Your task to perform on an android device: open app "Etsy: Buy & Sell Unique Items" Image 0: 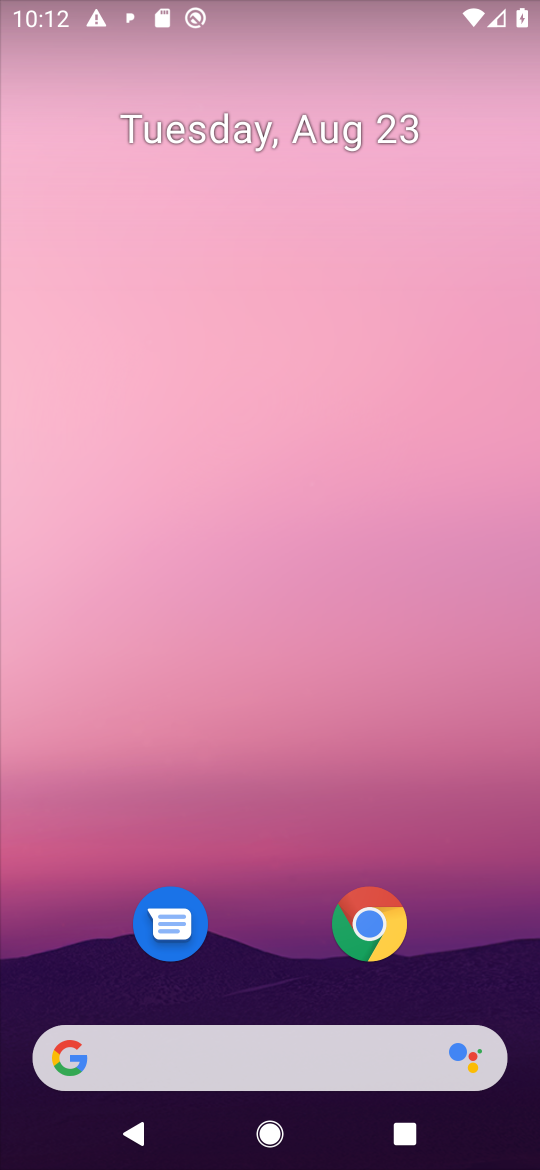
Step 0: press home button
Your task to perform on an android device: open app "Etsy: Buy & Sell Unique Items" Image 1: 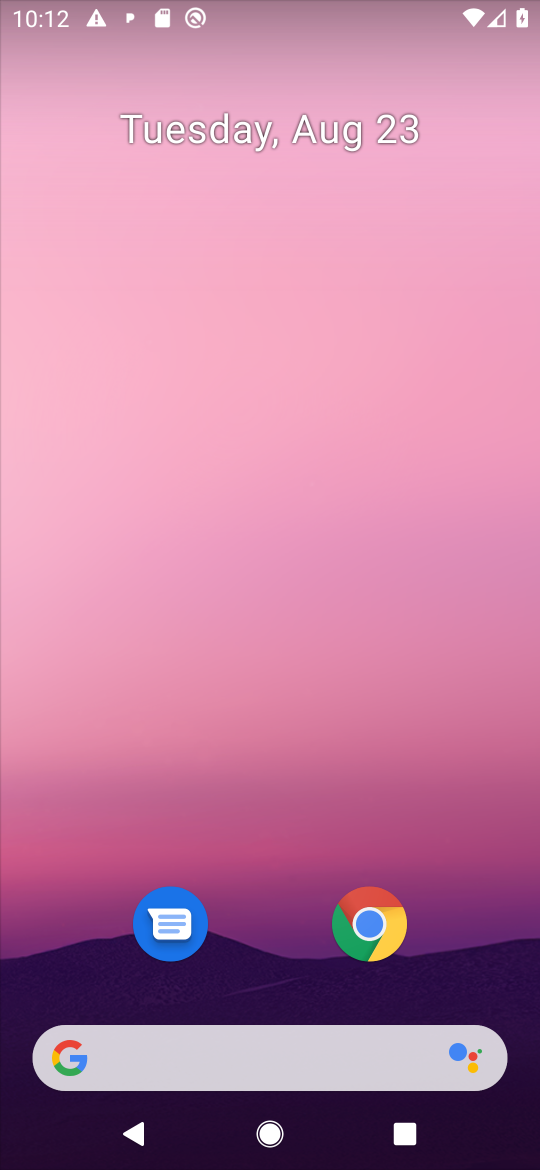
Step 1: drag from (466, 814) to (494, 22)
Your task to perform on an android device: open app "Etsy: Buy & Sell Unique Items" Image 2: 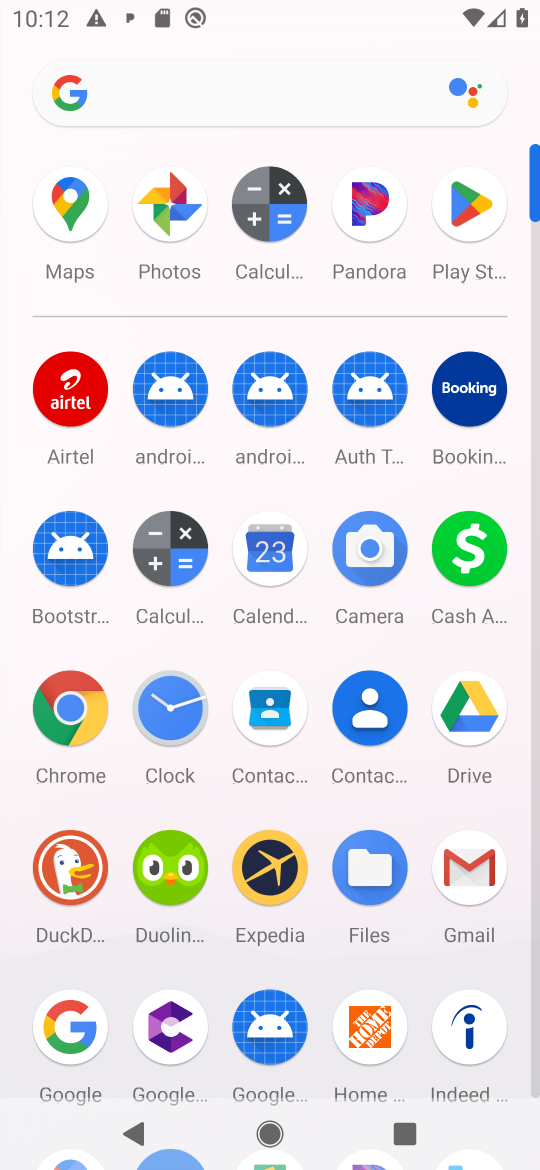
Step 2: click (469, 204)
Your task to perform on an android device: open app "Etsy: Buy & Sell Unique Items" Image 3: 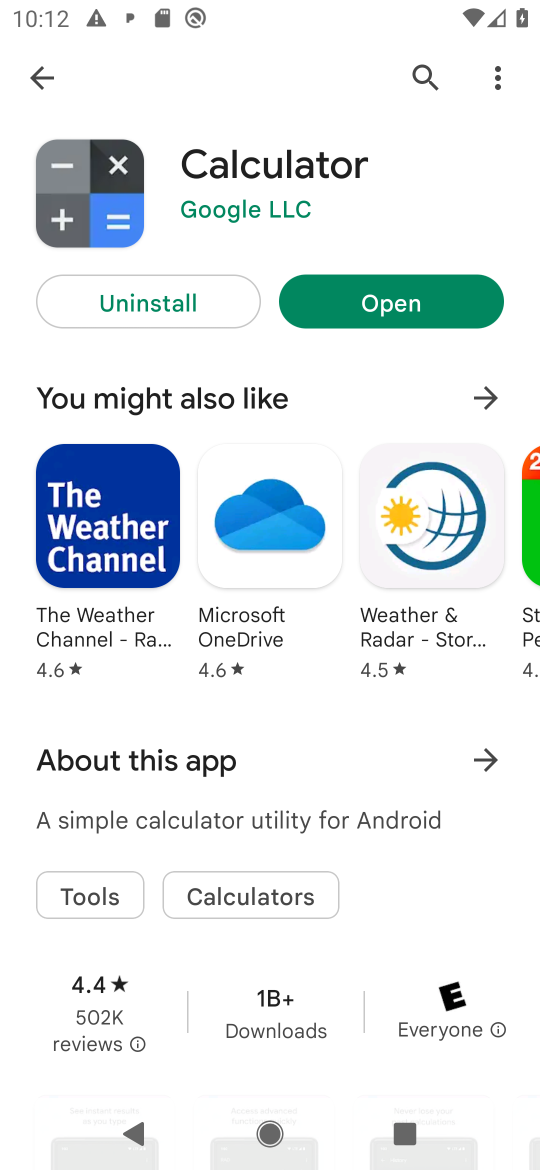
Step 3: press back button
Your task to perform on an android device: open app "Etsy: Buy & Sell Unique Items" Image 4: 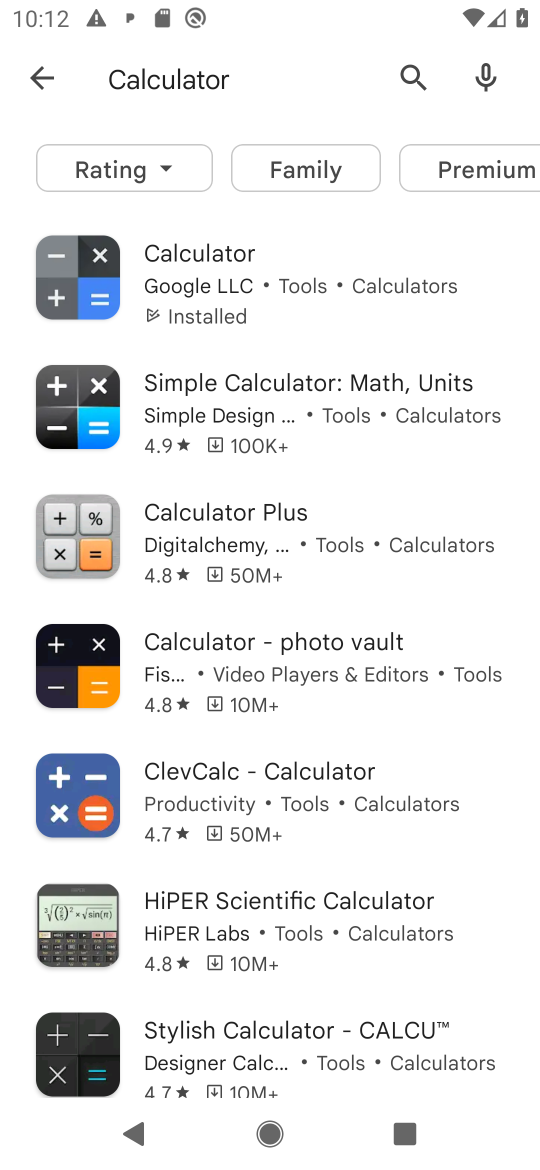
Step 4: press back button
Your task to perform on an android device: open app "Etsy: Buy & Sell Unique Items" Image 5: 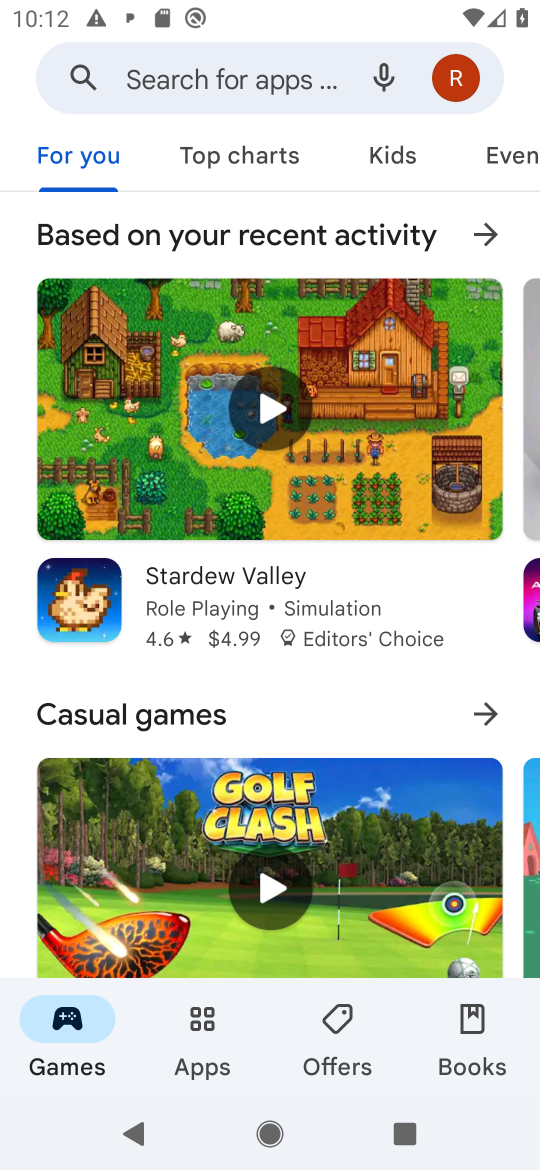
Step 5: click (295, 84)
Your task to perform on an android device: open app "Etsy: Buy & Sell Unique Items" Image 6: 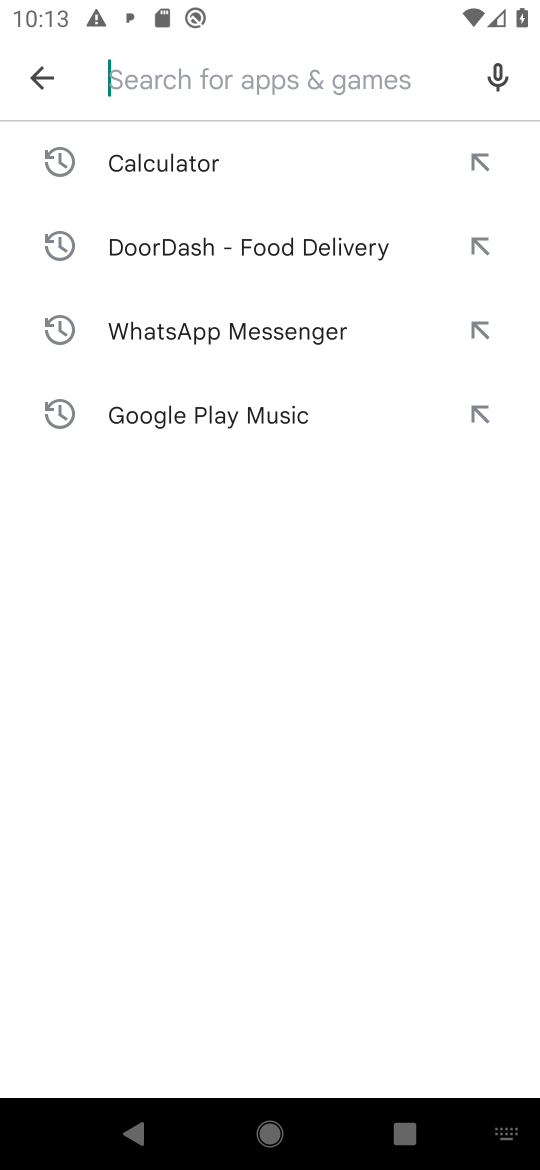
Step 6: press enter
Your task to perform on an android device: open app "Etsy: Buy & Sell Unique Items" Image 7: 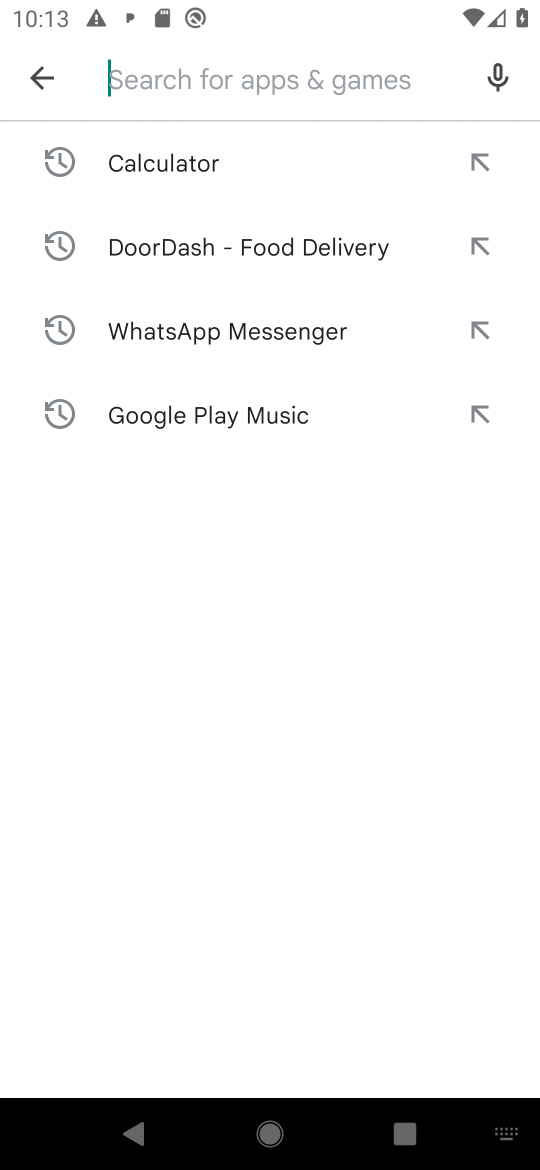
Step 7: type "Etsy: Buy & Sell Unique Items"
Your task to perform on an android device: open app "Etsy: Buy & Sell Unique Items" Image 8: 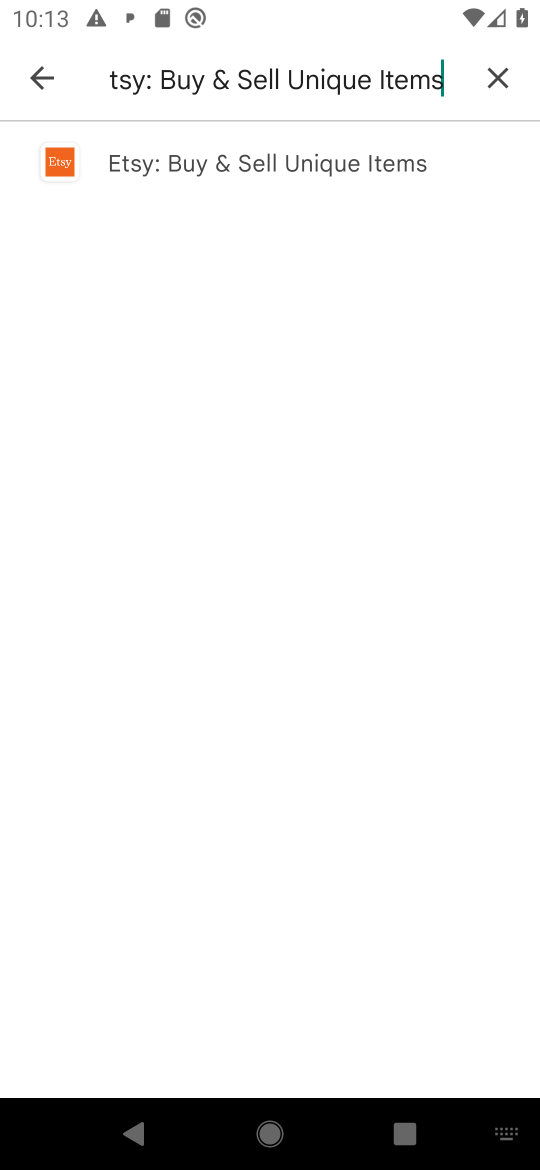
Step 8: click (380, 168)
Your task to perform on an android device: open app "Etsy: Buy & Sell Unique Items" Image 9: 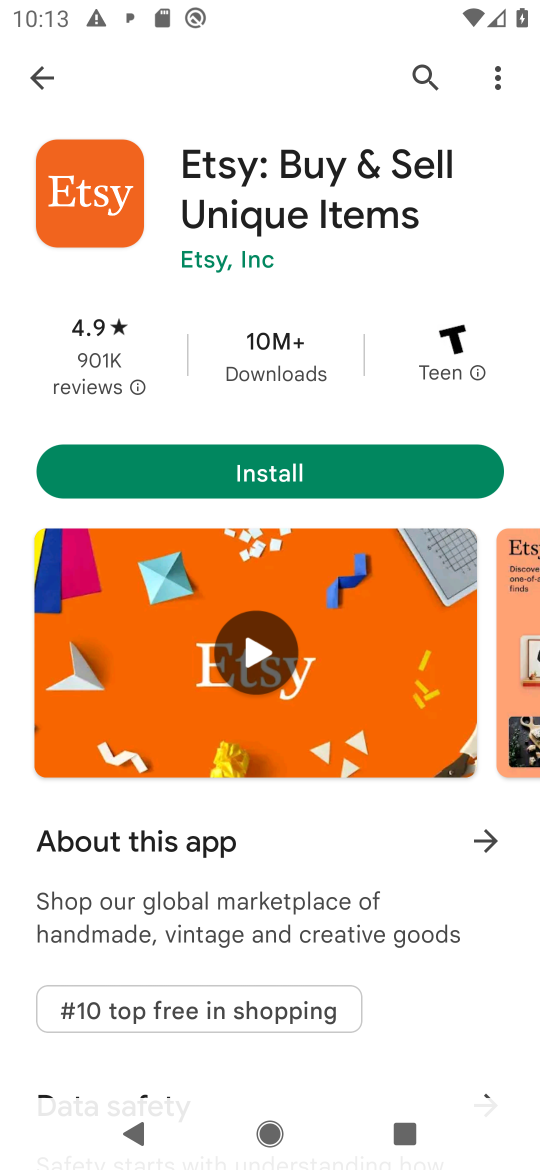
Step 9: task complete